Your task to perform on an android device: install app "PlayWell" Image 0: 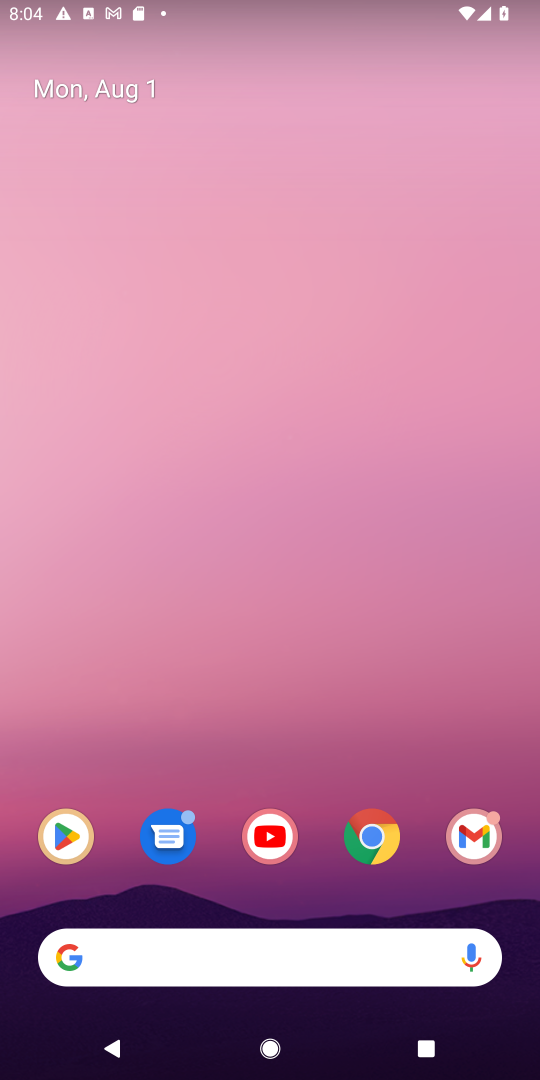
Step 0: click (73, 830)
Your task to perform on an android device: install app "PlayWell" Image 1: 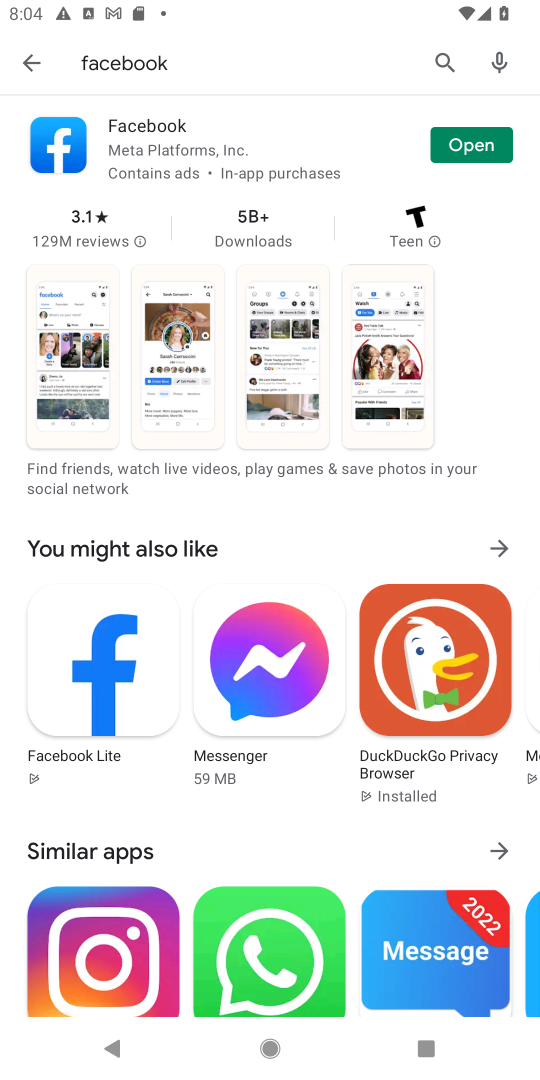
Step 1: click (437, 60)
Your task to perform on an android device: install app "PlayWell" Image 2: 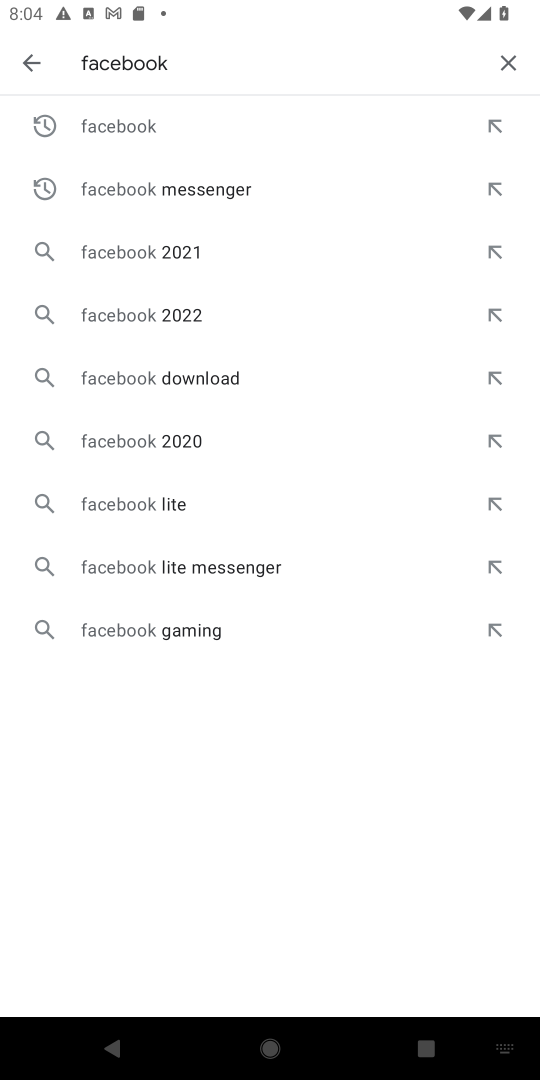
Step 2: click (507, 55)
Your task to perform on an android device: install app "PlayWell" Image 3: 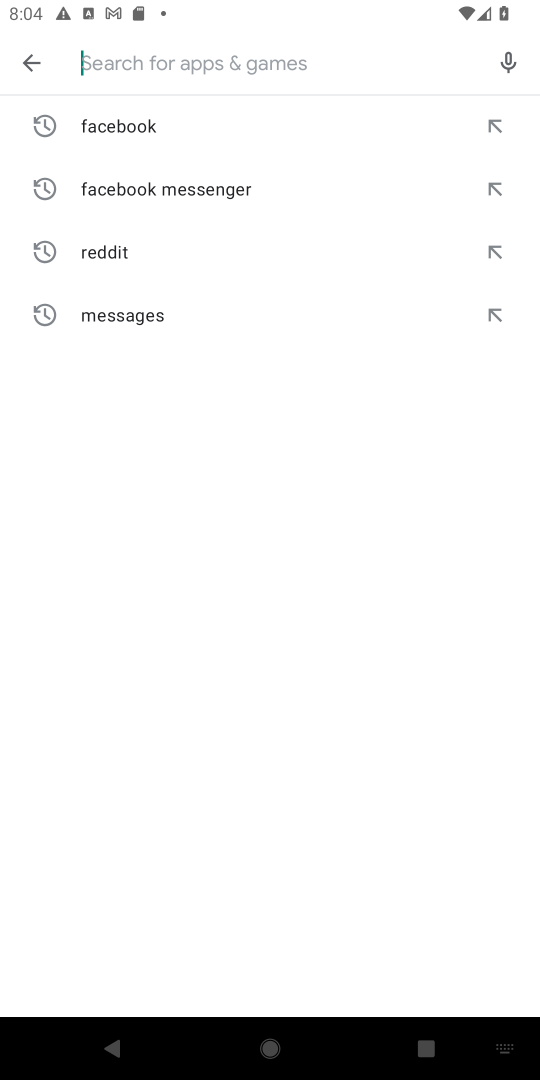
Step 3: type "PlayWell"
Your task to perform on an android device: install app "PlayWell" Image 4: 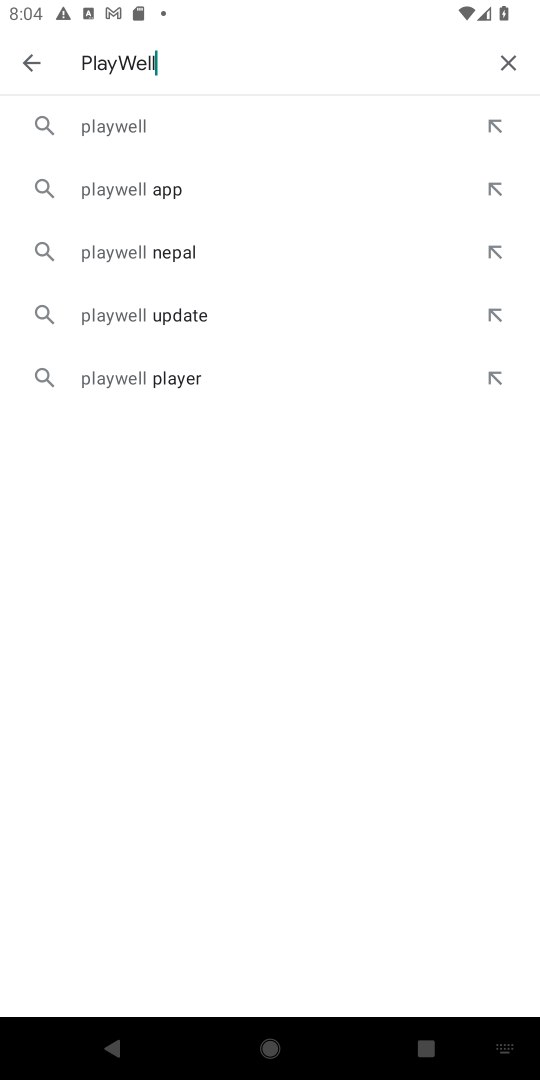
Step 4: click (142, 124)
Your task to perform on an android device: install app "PlayWell" Image 5: 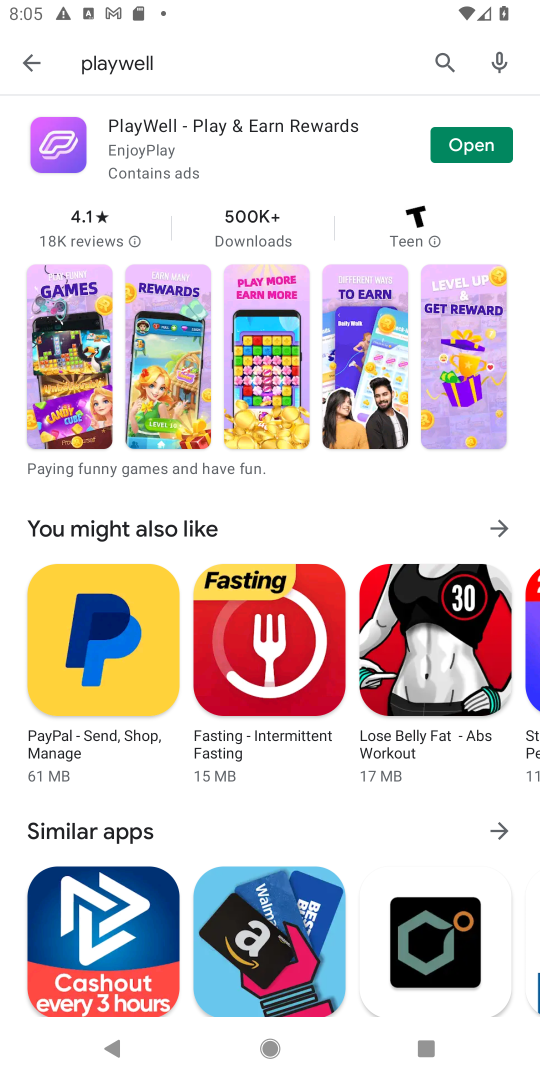
Step 5: task complete